Your task to perform on an android device: Open Google Maps and go to "Timeline" Image 0: 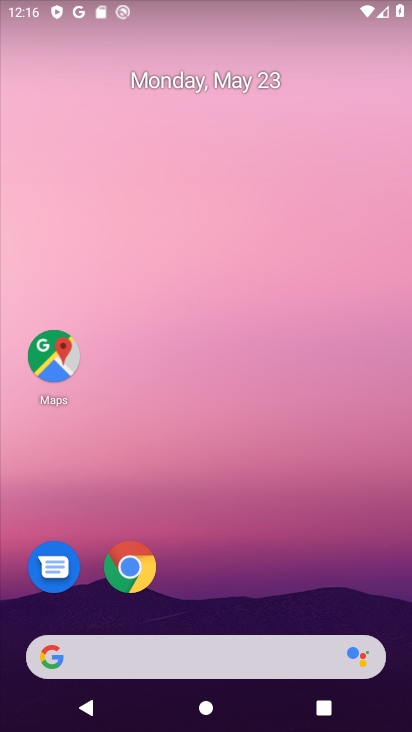
Step 0: click (58, 337)
Your task to perform on an android device: Open Google Maps and go to "Timeline" Image 1: 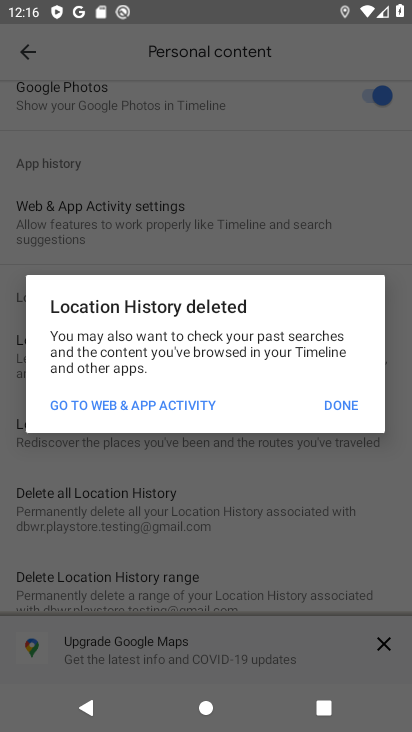
Step 1: click (324, 391)
Your task to perform on an android device: Open Google Maps and go to "Timeline" Image 2: 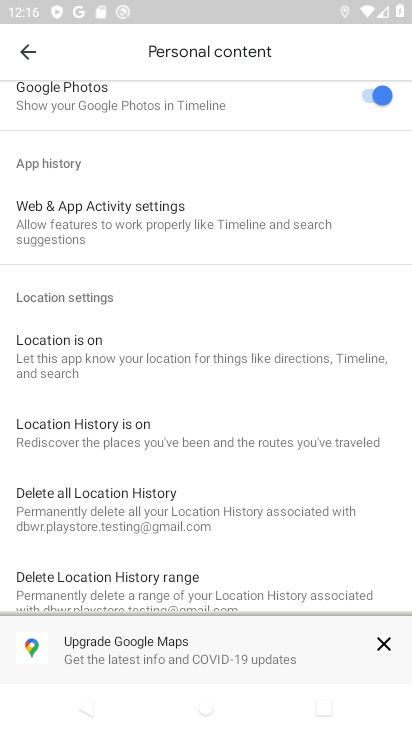
Step 2: click (29, 63)
Your task to perform on an android device: Open Google Maps and go to "Timeline" Image 3: 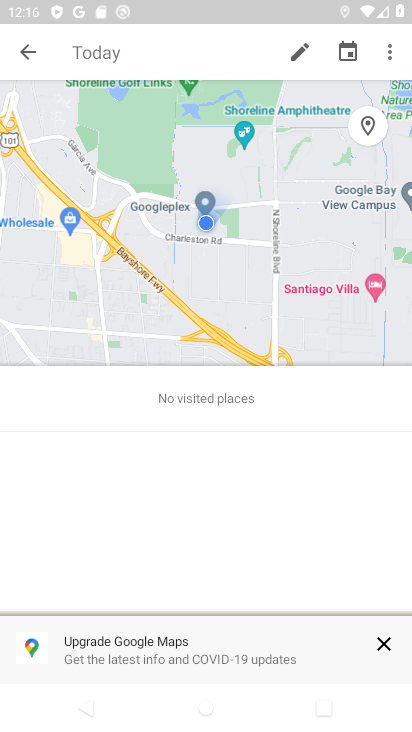
Step 3: click (29, 59)
Your task to perform on an android device: Open Google Maps and go to "Timeline" Image 4: 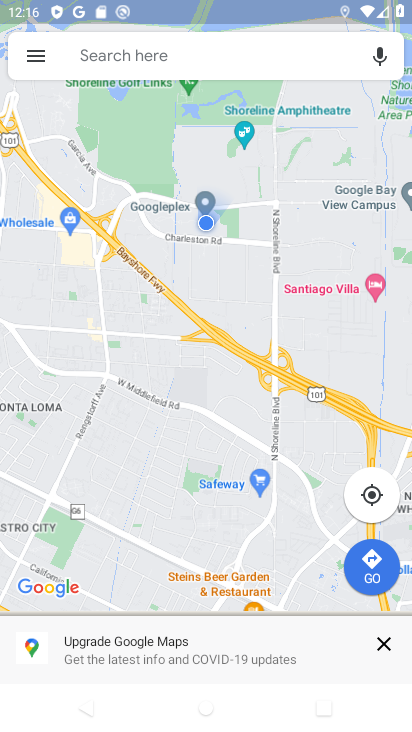
Step 4: click (29, 59)
Your task to perform on an android device: Open Google Maps and go to "Timeline" Image 5: 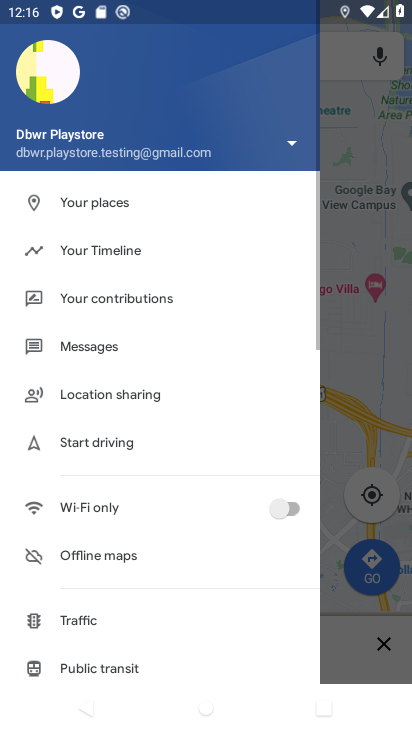
Step 5: click (104, 247)
Your task to perform on an android device: Open Google Maps and go to "Timeline" Image 6: 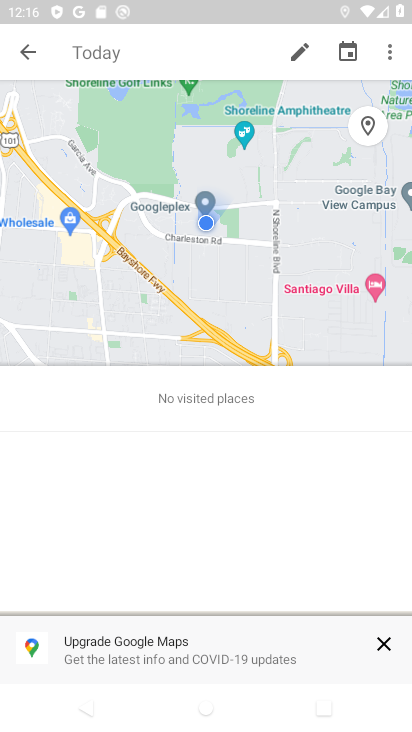
Step 6: task complete